Your task to perform on an android device: What's the news in Ecuador? Image 0: 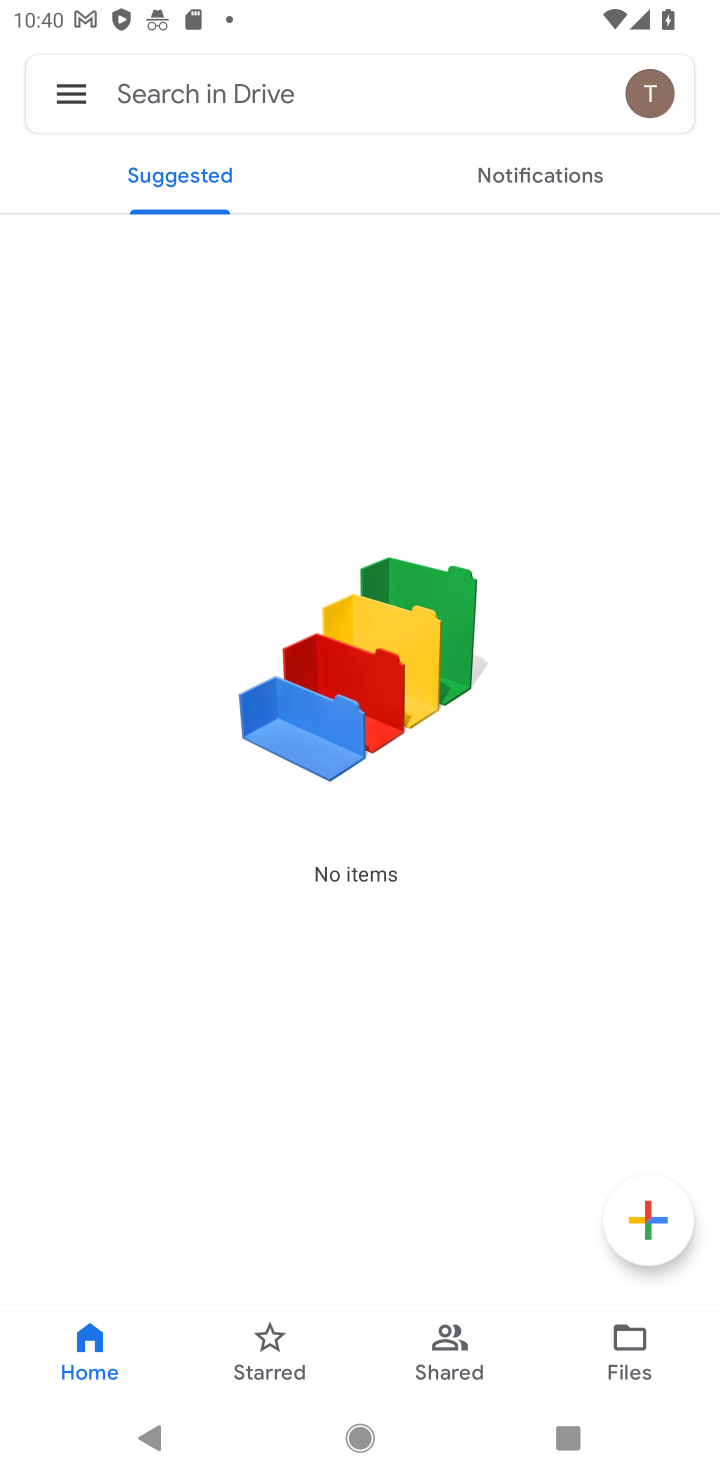
Step 0: press home button
Your task to perform on an android device: What's the news in Ecuador? Image 1: 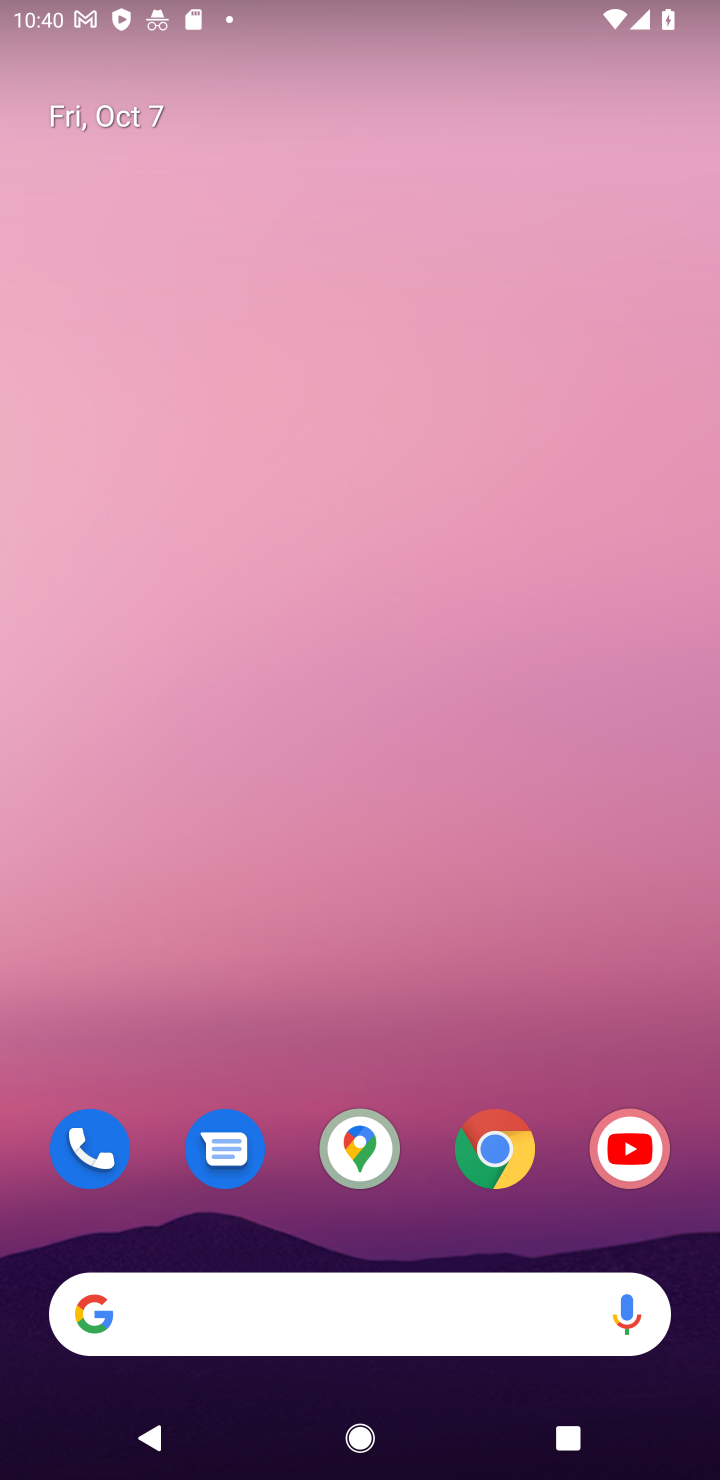
Step 1: click (365, 1317)
Your task to perform on an android device: What's the news in Ecuador? Image 2: 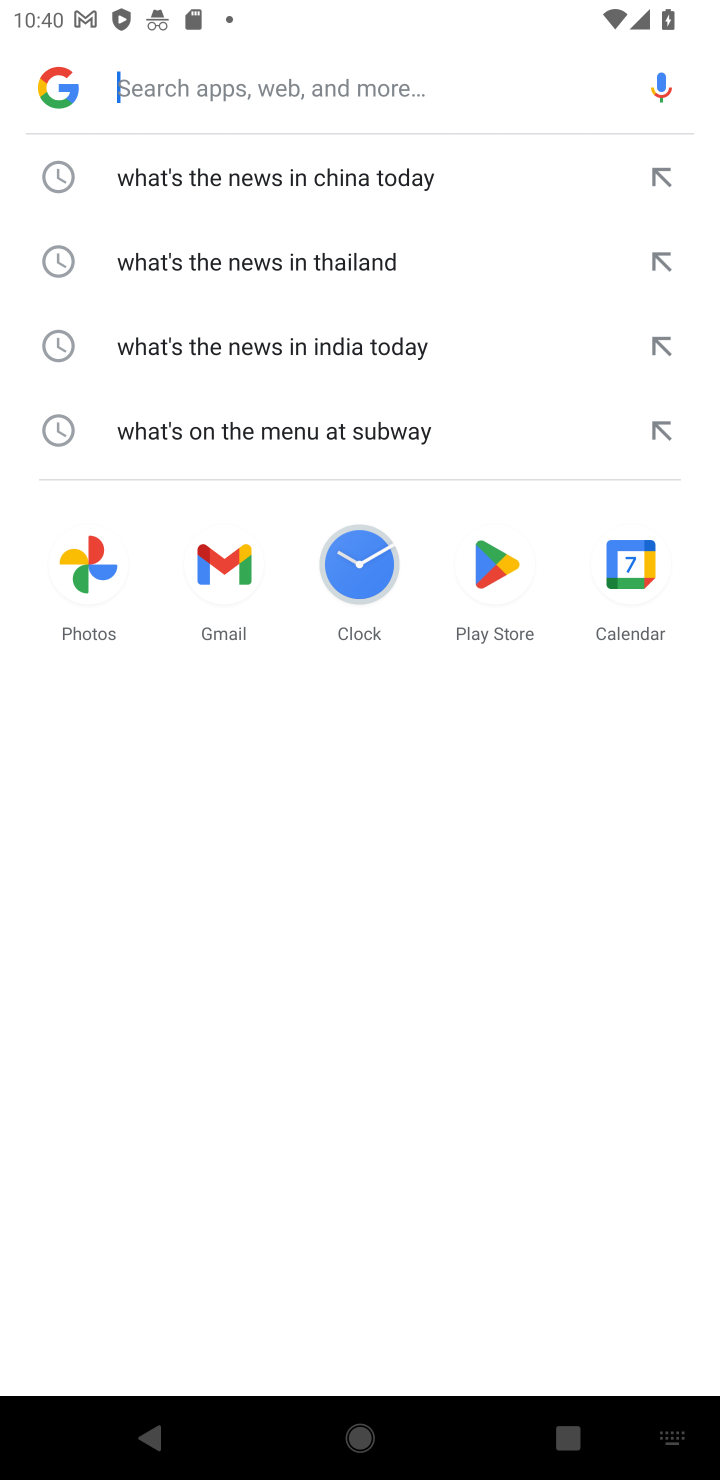
Step 2: type "What's the news in Ecuador?"
Your task to perform on an android device: What's the news in Ecuador? Image 3: 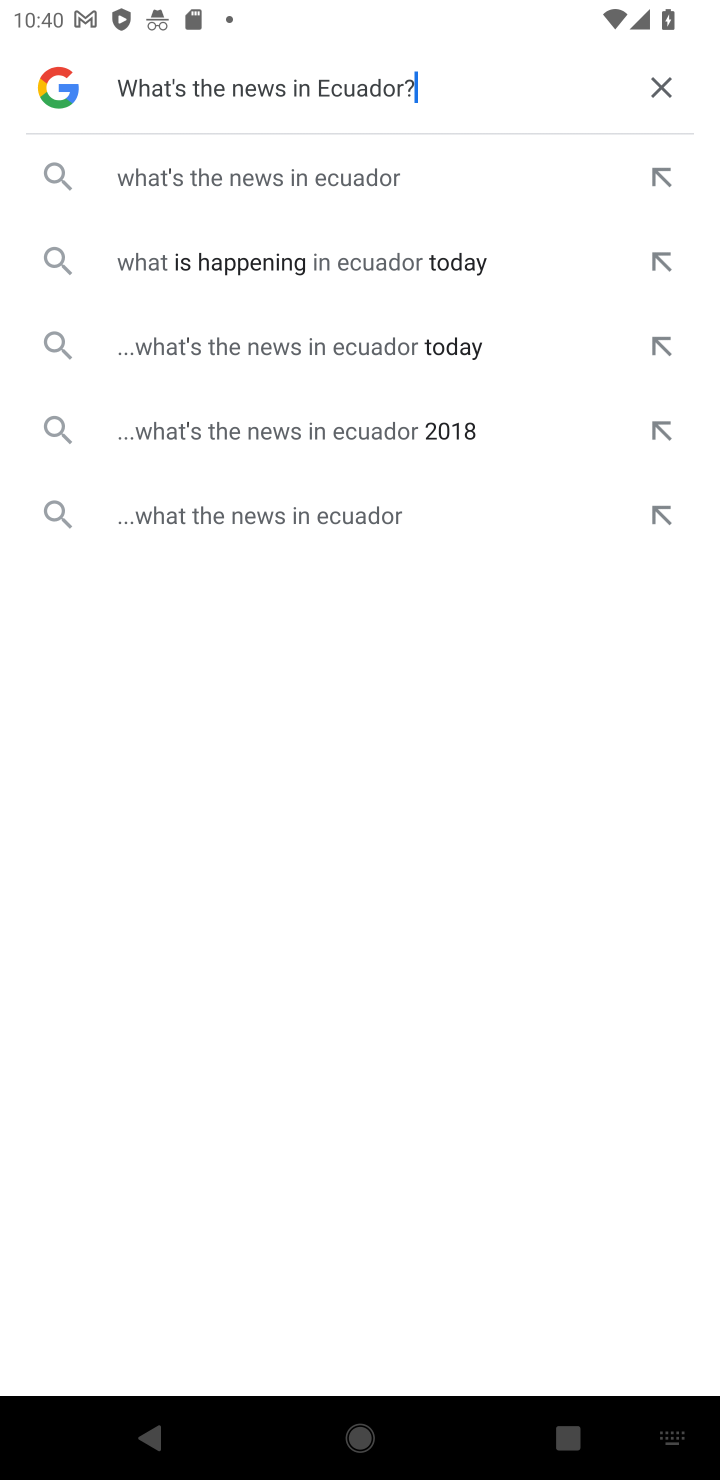
Step 3: click (363, 178)
Your task to perform on an android device: What's the news in Ecuador? Image 4: 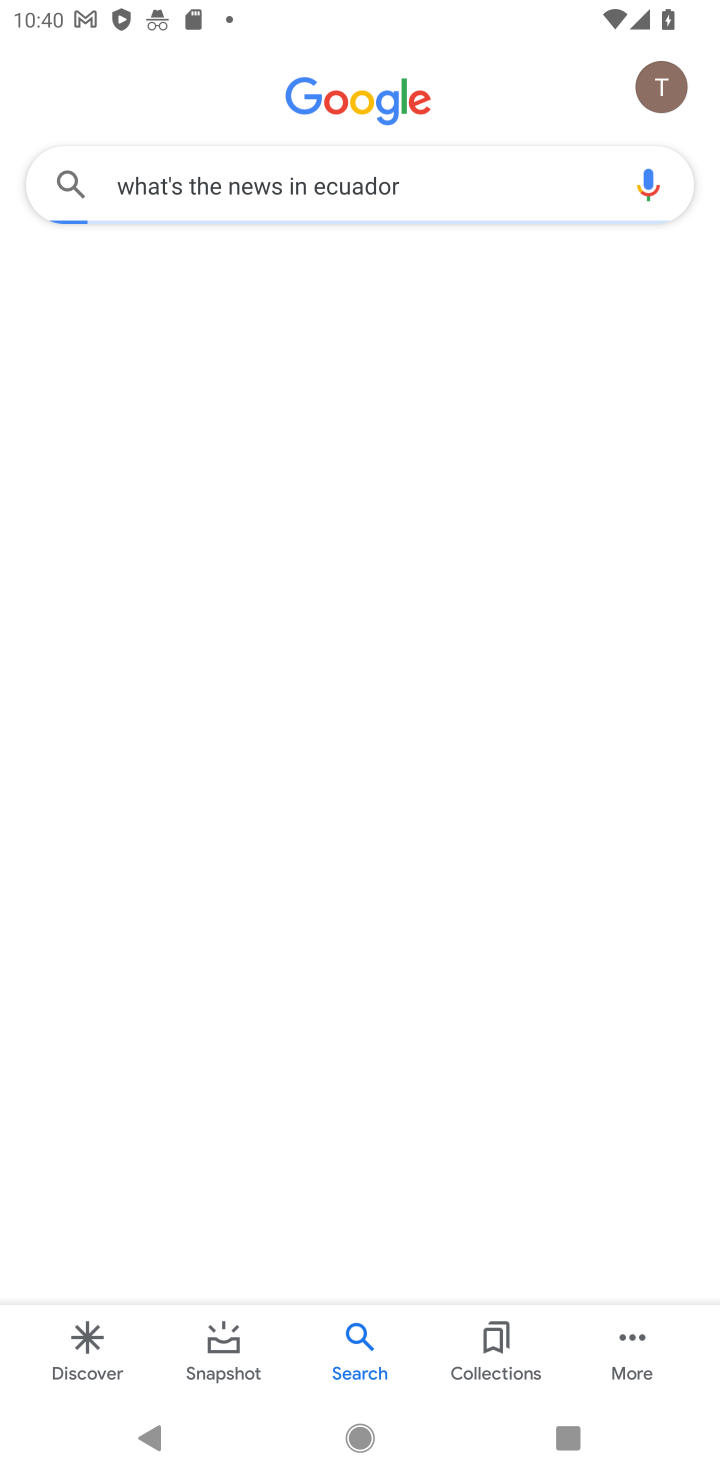
Step 4: task complete